Your task to perform on an android device: turn on data saver in the chrome app Image 0: 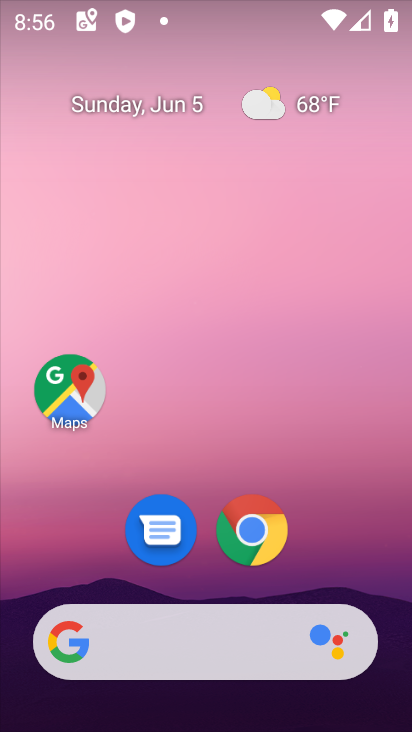
Step 0: click (257, 533)
Your task to perform on an android device: turn on data saver in the chrome app Image 1: 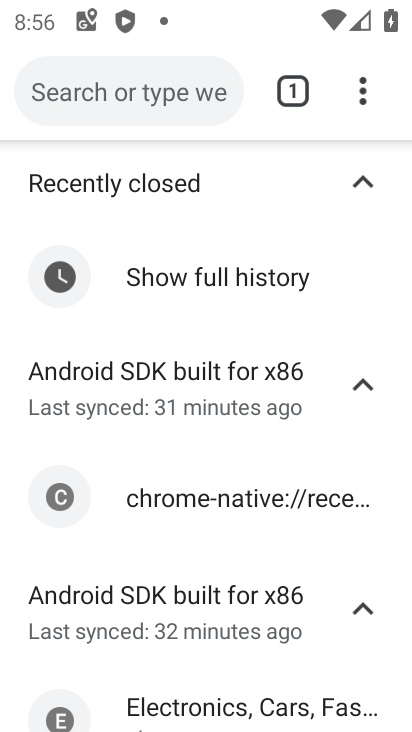
Step 1: click (365, 108)
Your task to perform on an android device: turn on data saver in the chrome app Image 2: 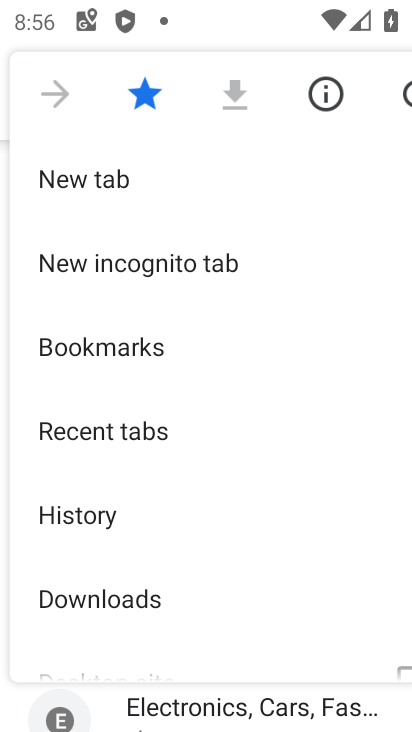
Step 2: drag from (211, 680) to (256, 178)
Your task to perform on an android device: turn on data saver in the chrome app Image 3: 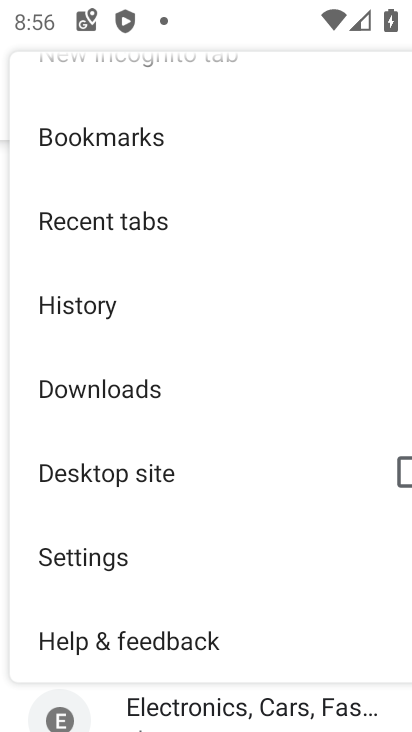
Step 3: click (67, 568)
Your task to perform on an android device: turn on data saver in the chrome app Image 4: 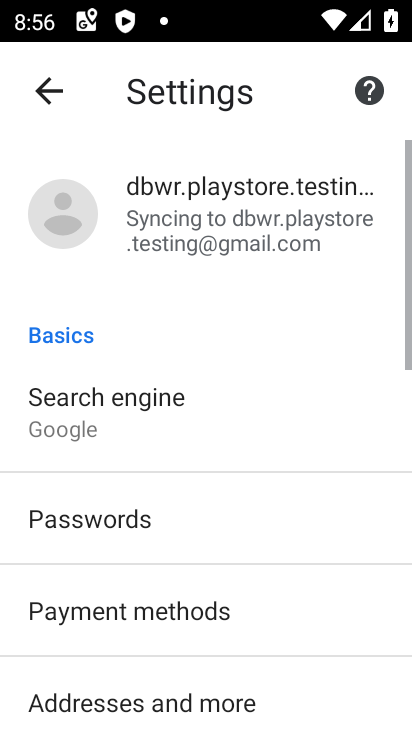
Step 4: drag from (308, 645) to (242, 55)
Your task to perform on an android device: turn on data saver in the chrome app Image 5: 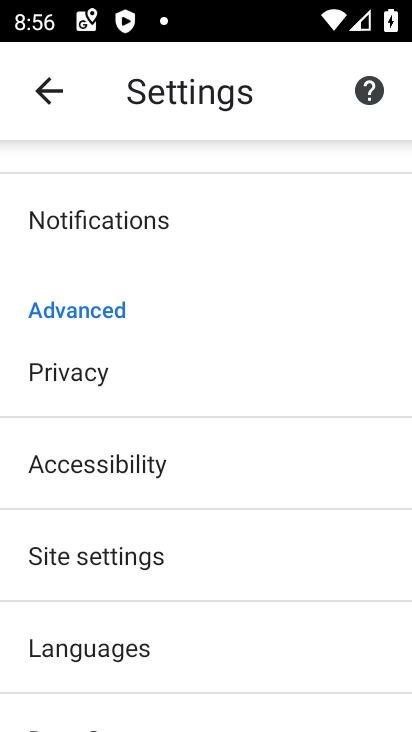
Step 5: drag from (190, 683) to (219, 267)
Your task to perform on an android device: turn on data saver in the chrome app Image 6: 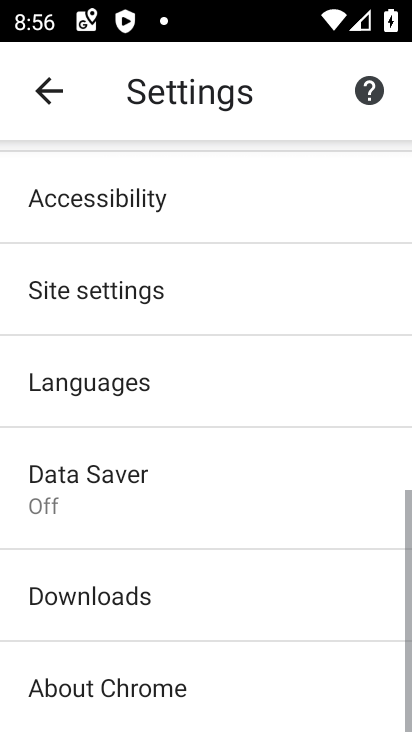
Step 6: click (89, 489)
Your task to perform on an android device: turn on data saver in the chrome app Image 7: 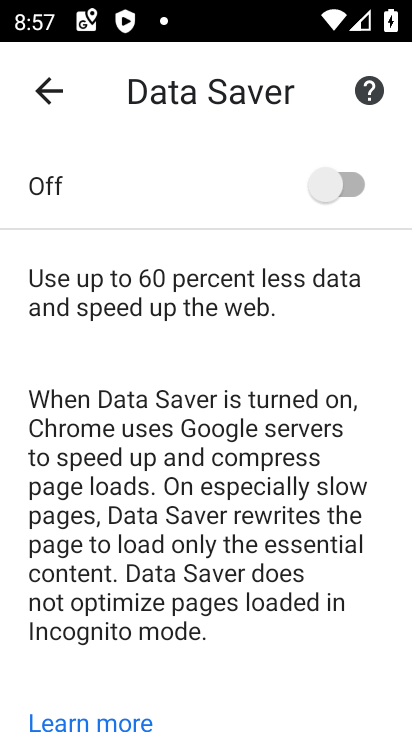
Step 7: click (356, 182)
Your task to perform on an android device: turn on data saver in the chrome app Image 8: 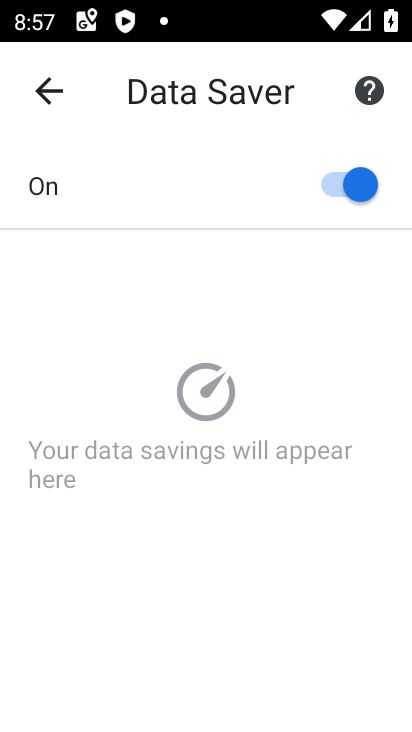
Step 8: task complete